Your task to perform on an android device: When is my next meeting? Image 0: 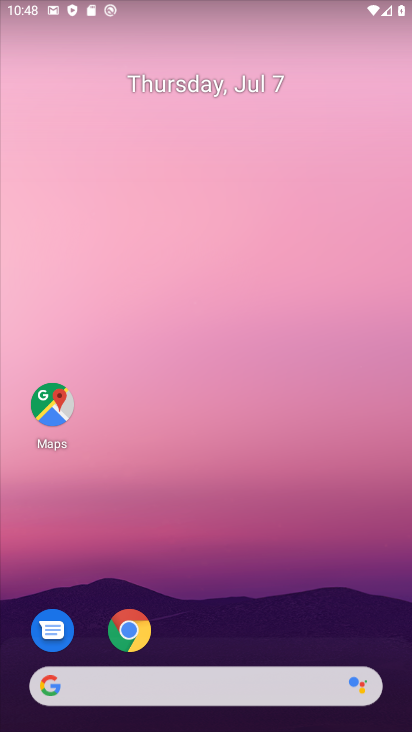
Step 0: drag from (404, 656) to (188, 0)
Your task to perform on an android device: When is my next meeting? Image 1: 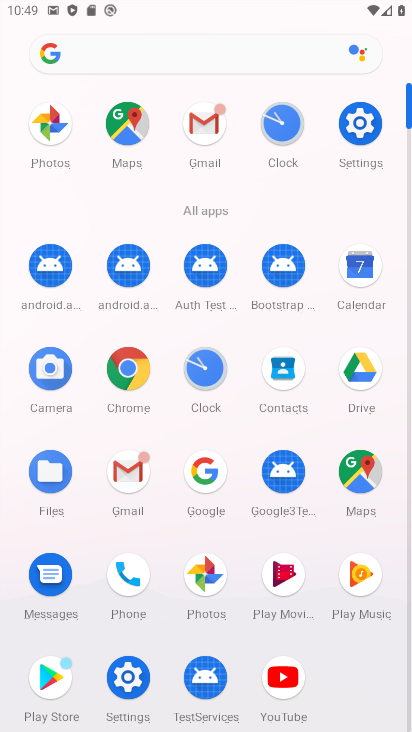
Step 1: click (366, 268)
Your task to perform on an android device: When is my next meeting? Image 2: 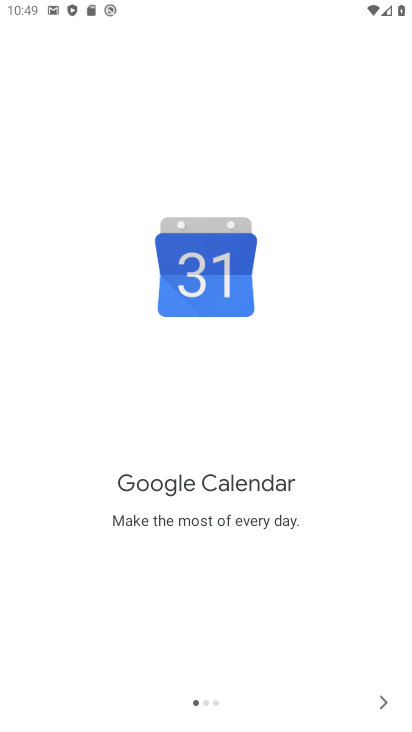
Step 2: click (385, 717)
Your task to perform on an android device: When is my next meeting? Image 3: 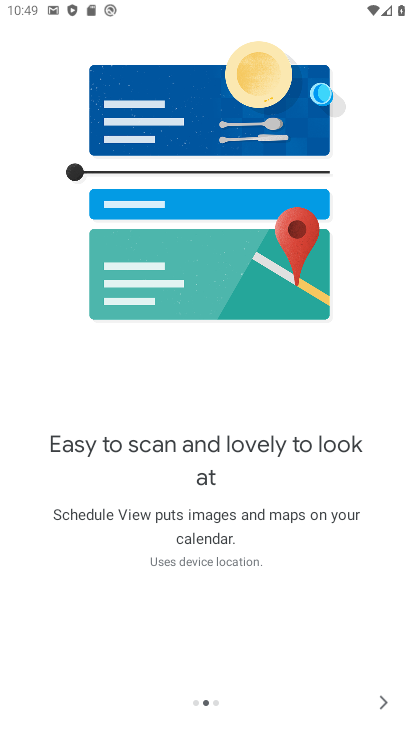
Step 3: click (385, 717)
Your task to perform on an android device: When is my next meeting? Image 4: 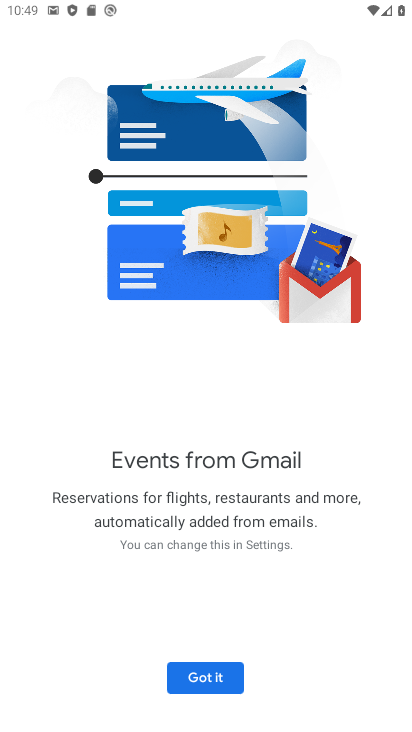
Step 4: click (206, 680)
Your task to perform on an android device: When is my next meeting? Image 5: 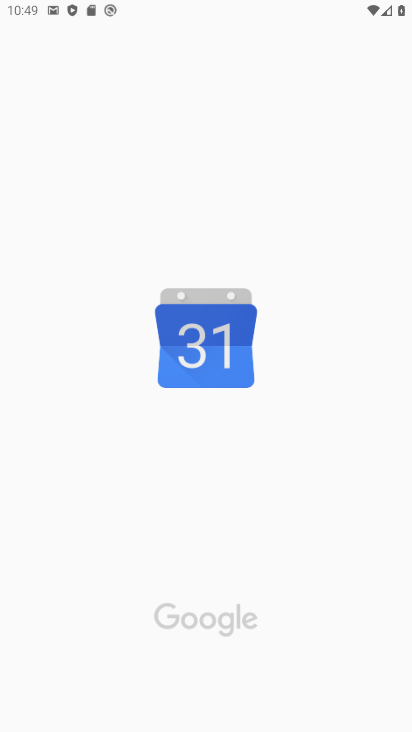
Step 5: click (206, 680)
Your task to perform on an android device: When is my next meeting? Image 6: 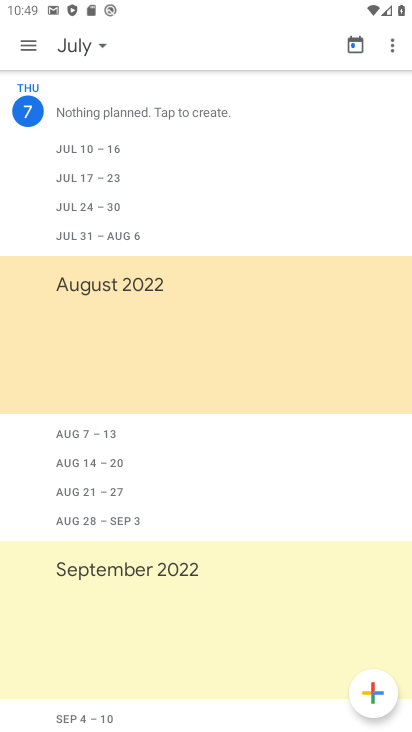
Step 6: task complete